Your task to perform on an android device: turn on javascript in the chrome app Image 0: 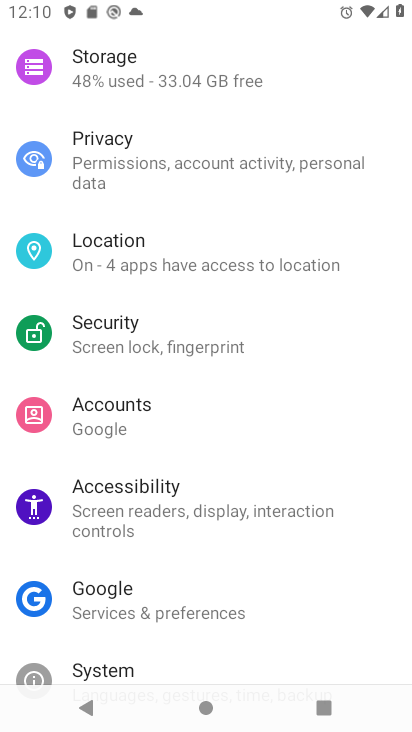
Step 0: press home button
Your task to perform on an android device: turn on javascript in the chrome app Image 1: 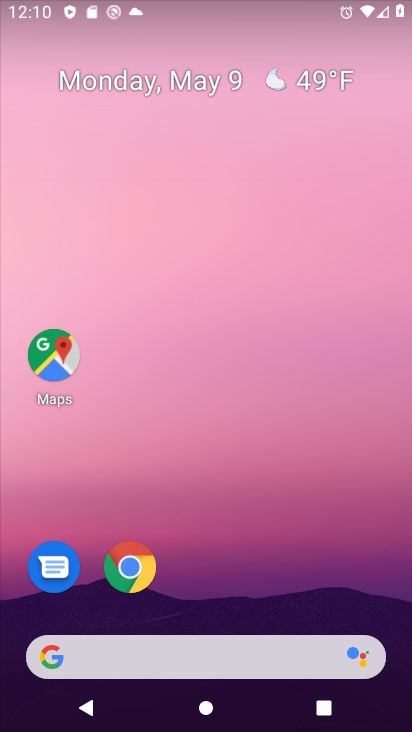
Step 1: drag from (225, 724) to (225, 278)
Your task to perform on an android device: turn on javascript in the chrome app Image 2: 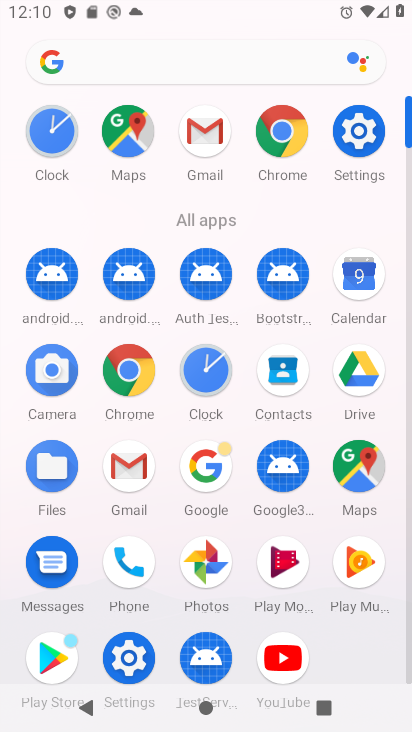
Step 2: click (127, 372)
Your task to perform on an android device: turn on javascript in the chrome app Image 3: 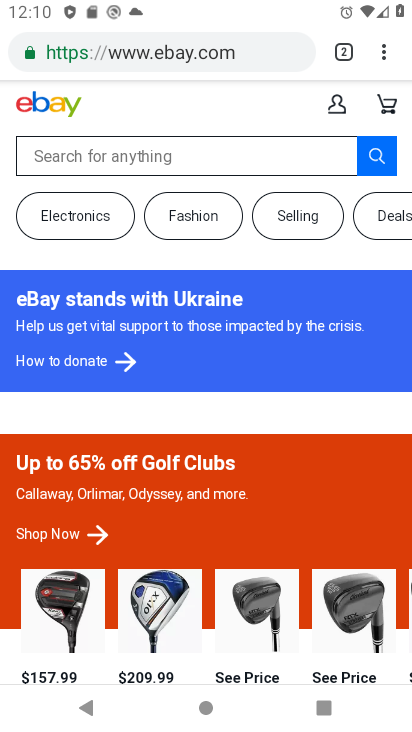
Step 3: click (384, 54)
Your task to perform on an android device: turn on javascript in the chrome app Image 4: 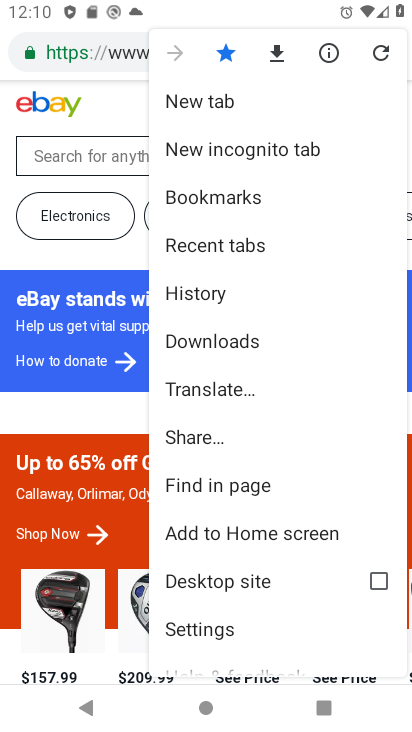
Step 4: click (203, 629)
Your task to perform on an android device: turn on javascript in the chrome app Image 5: 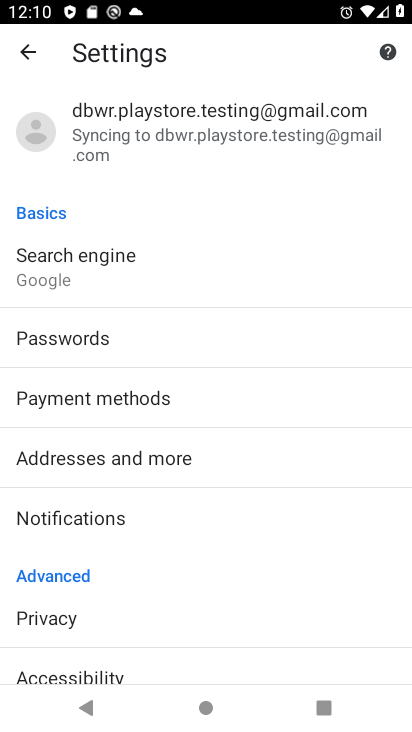
Step 5: drag from (142, 646) to (148, 291)
Your task to perform on an android device: turn on javascript in the chrome app Image 6: 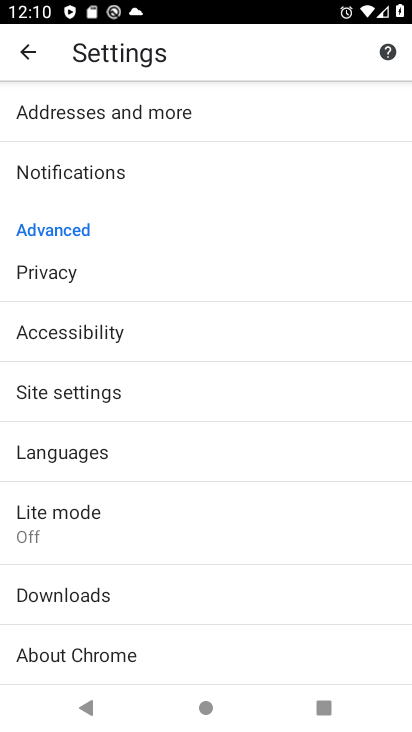
Step 6: click (70, 393)
Your task to perform on an android device: turn on javascript in the chrome app Image 7: 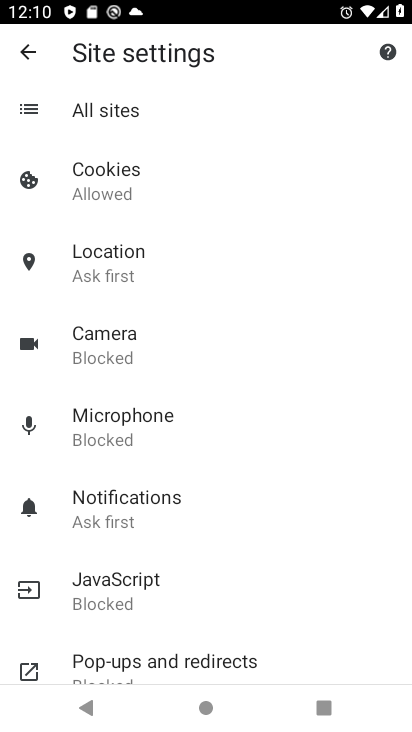
Step 7: click (101, 584)
Your task to perform on an android device: turn on javascript in the chrome app Image 8: 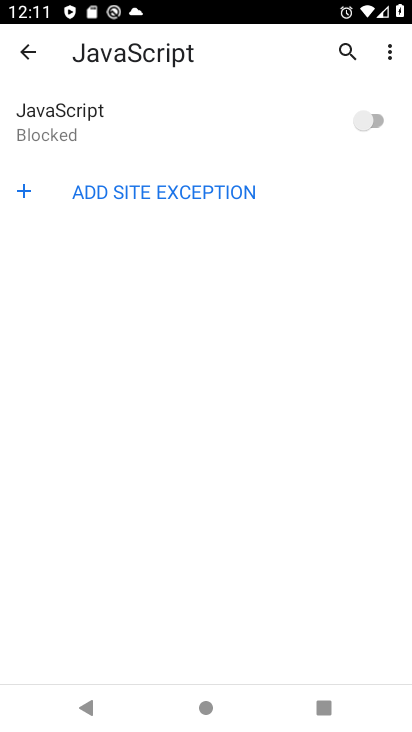
Step 8: click (378, 115)
Your task to perform on an android device: turn on javascript in the chrome app Image 9: 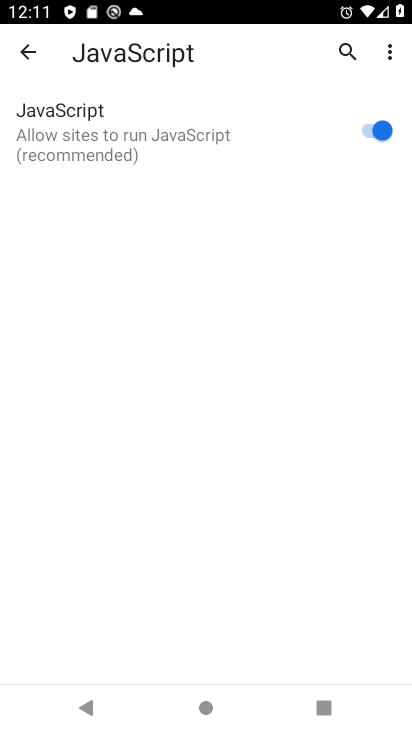
Step 9: task complete